Your task to perform on an android device: Open notification settings Image 0: 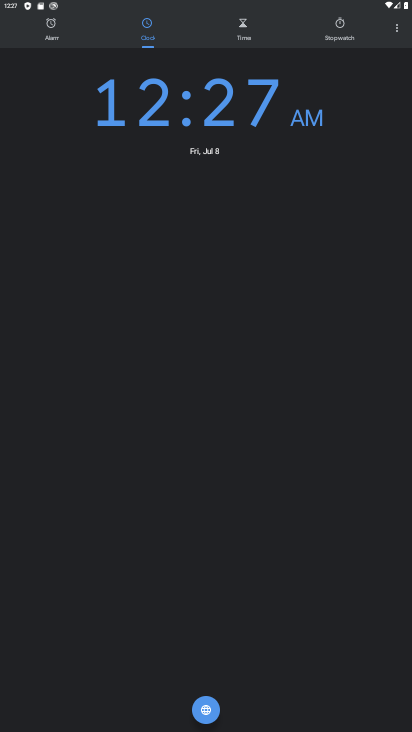
Step 0: press home button
Your task to perform on an android device: Open notification settings Image 1: 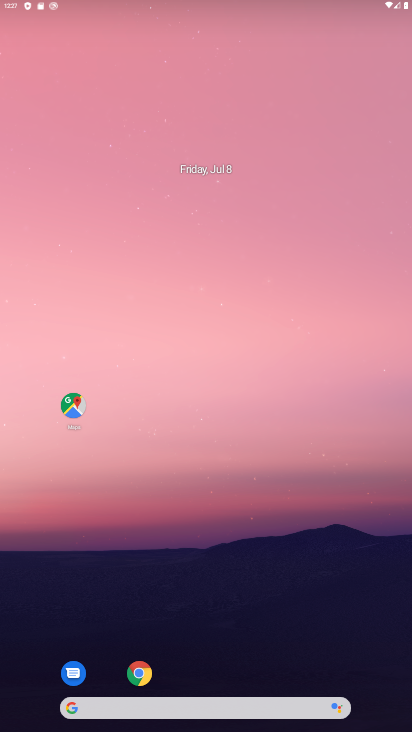
Step 1: drag from (198, 661) to (229, 131)
Your task to perform on an android device: Open notification settings Image 2: 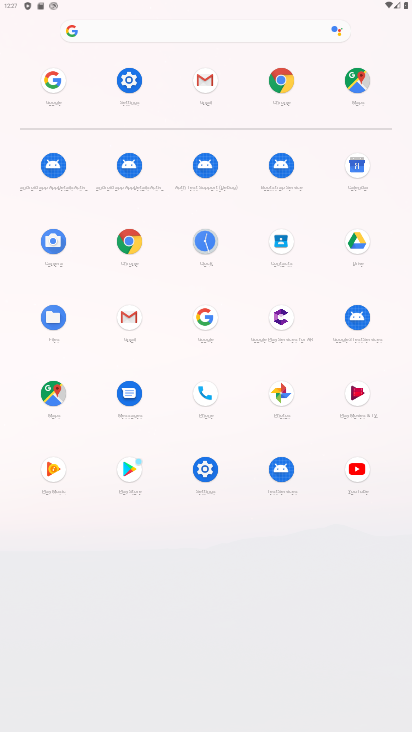
Step 2: click (135, 83)
Your task to perform on an android device: Open notification settings Image 3: 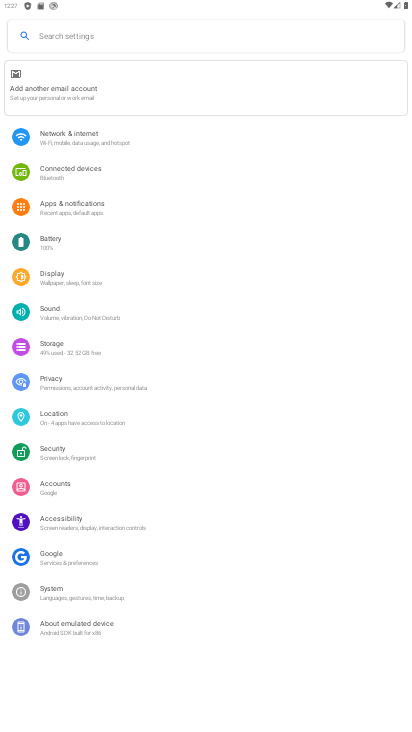
Step 3: click (73, 206)
Your task to perform on an android device: Open notification settings Image 4: 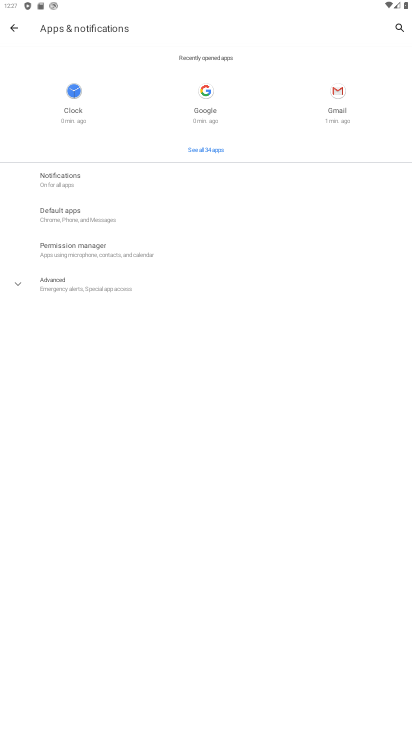
Step 4: click (62, 179)
Your task to perform on an android device: Open notification settings Image 5: 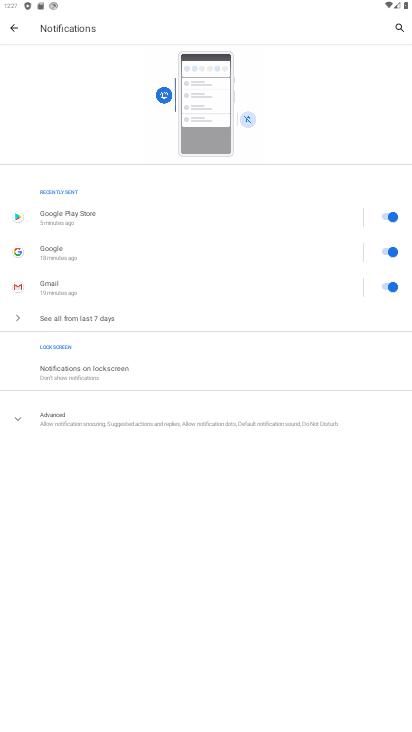
Step 5: click (67, 422)
Your task to perform on an android device: Open notification settings Image 6: 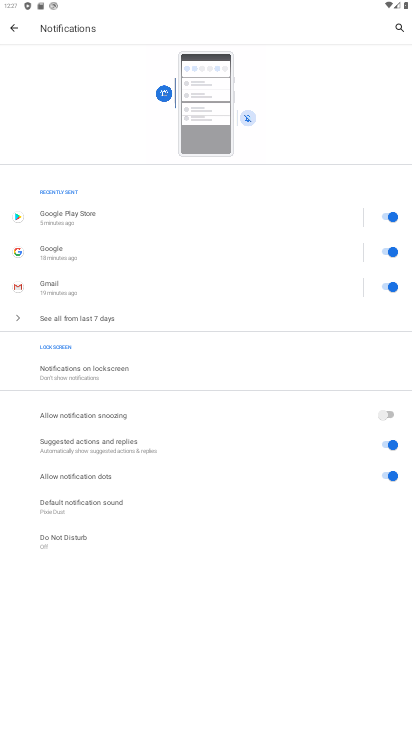
Step 6: task complete